Your task to perform on an android device: turn pop-ups off in chrome Image 0: 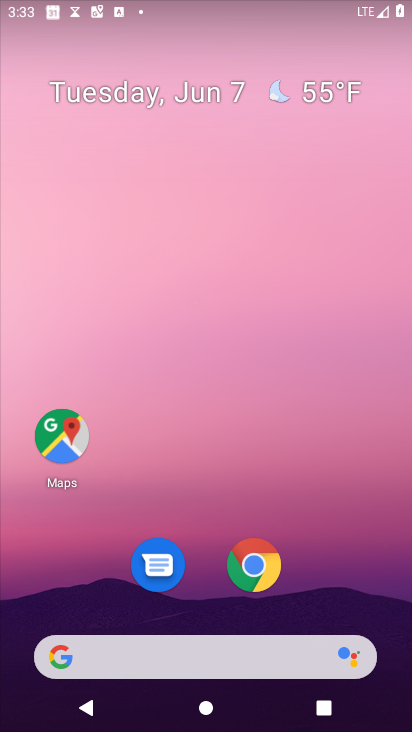
Step 0: drag from (215, 648) to (209, 3)
Your task to perform on an android device: turn pop-ups off in chrome Image 1: 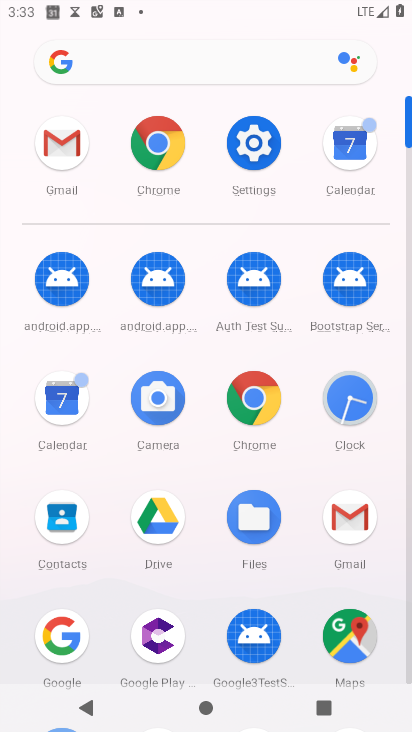
Step 1: click (248, 398)
Your task to perform on an android device: turn pop-ups off in chrome Image 2: 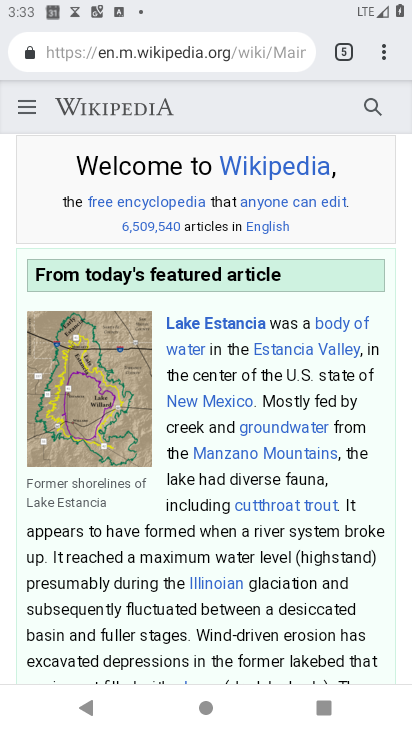
Step 2: click (384, 49)
Your task to perform on an android device: turn pop-ups off in chrome Image 3: 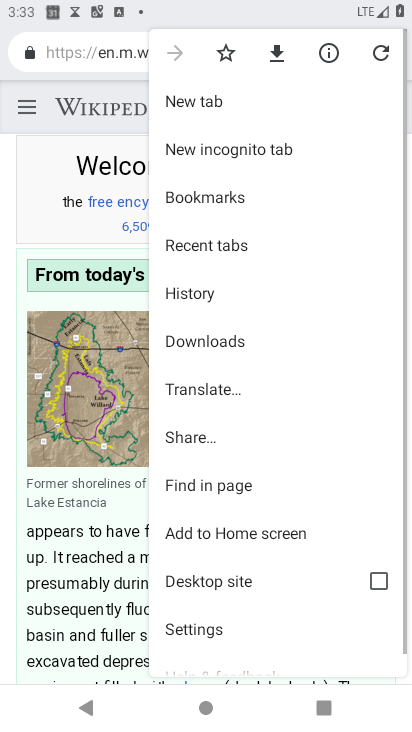
Step 3: click (221, 624)
Your task to perform on an android device: turn pop-ups off in chrome Image 4: 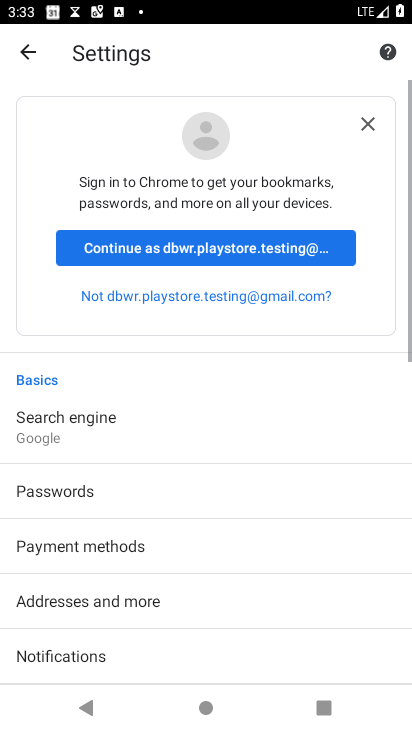
Step 4: drag from (219, 667) to (260, 135)
Your task to perform on an android device: turn pop-ups off in chrome Image 5: 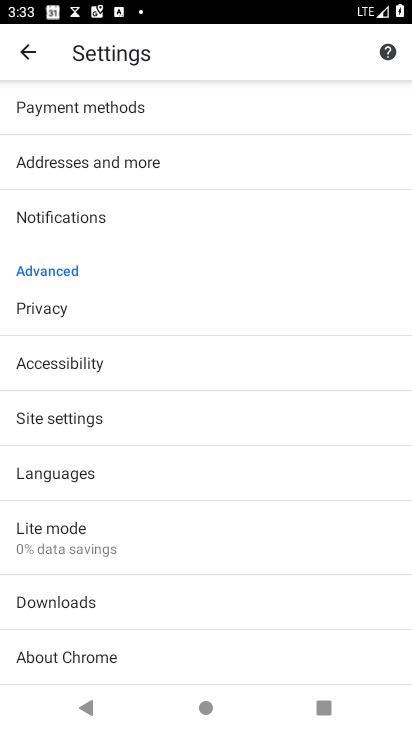
Step 5: click (158, 418)
Your task to perform on an android device: turn pop-ups off in chrome Image 6: 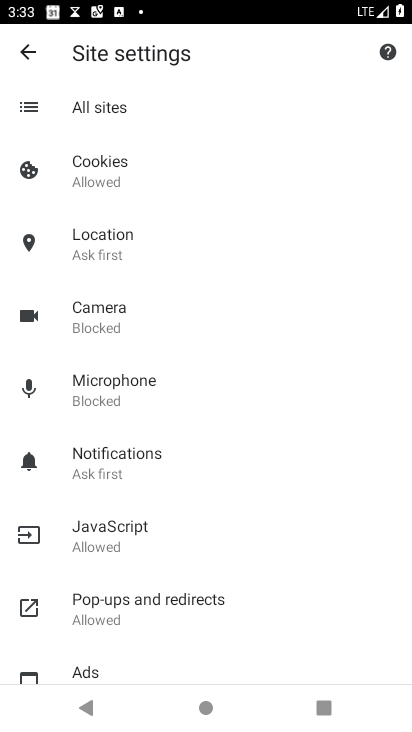
Step 6: click (182, 611)
Your task to perform on an android device: turn pop-ups off in chrome Image 7: 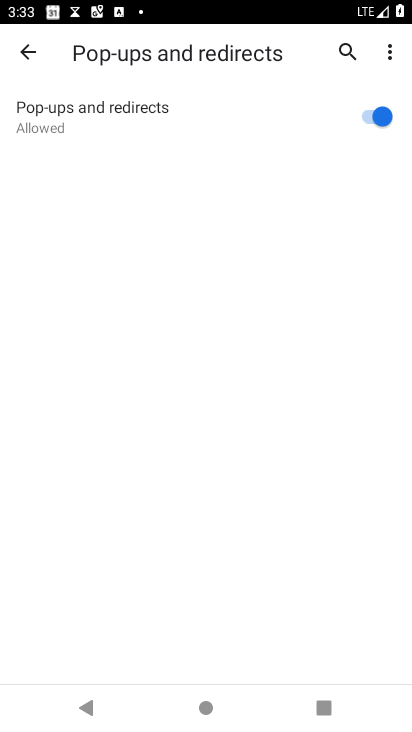
Step 7: click (375, 114)
Your task to perform on an android device: turn pop-ups off in chrome Image 8: 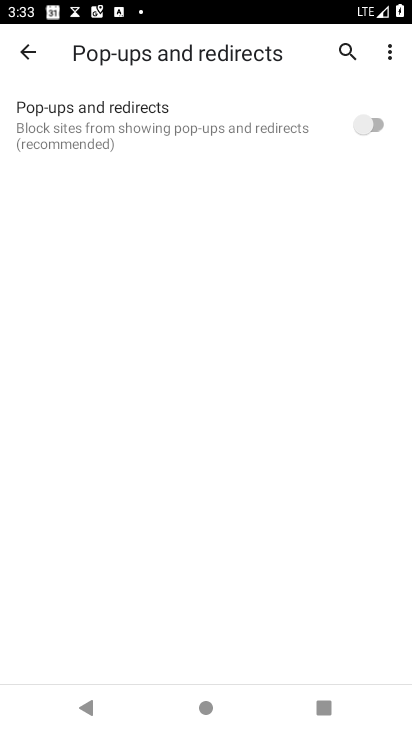
Step 8: task complete